Your task to perform on an android device: open a bookmark in the chrome app Image 0: 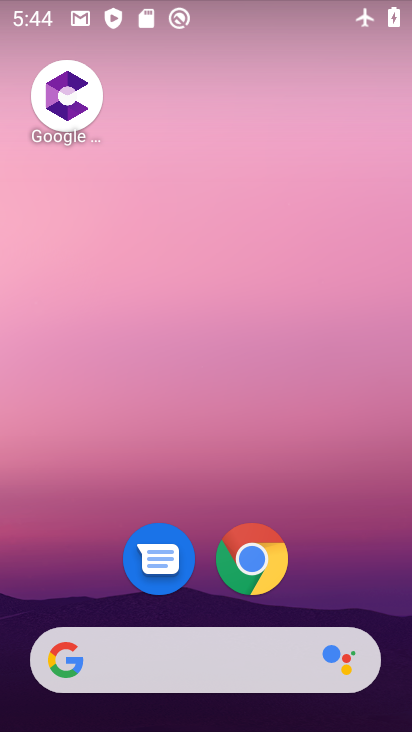
Step 0: click (250, 561)
Your task to perform on an android device: open a bookmark in the chrome app Image 1: 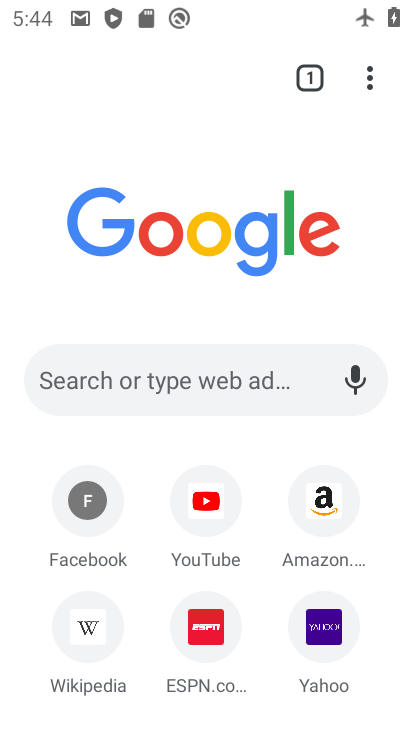
Step 1: click (369, 76)
Your task to perform on an android device: open a bookmark in the chrome app Image 2: 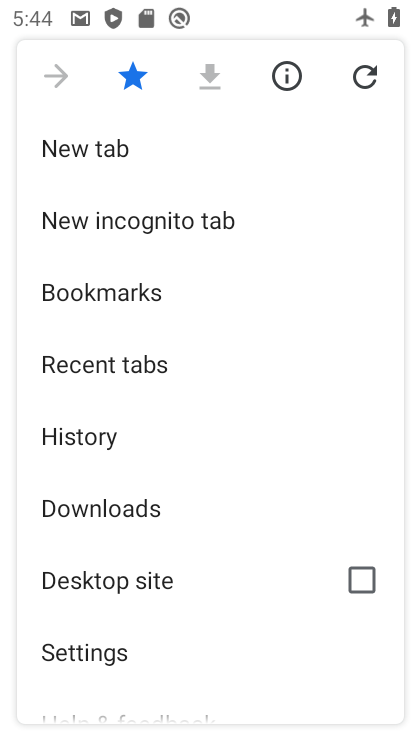
Step 2: click (131, 284)
Your task to perform on an android device: open a bookmark in the chrome app Image 3: 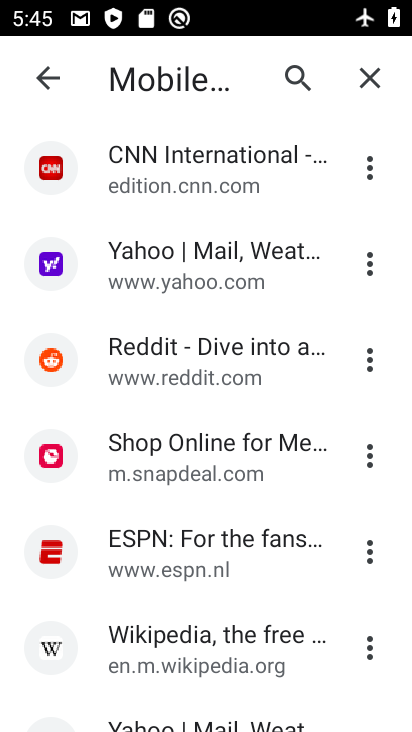
Step 3: task complete